Your task to perform on an android device: all mails in gmail Image 0: 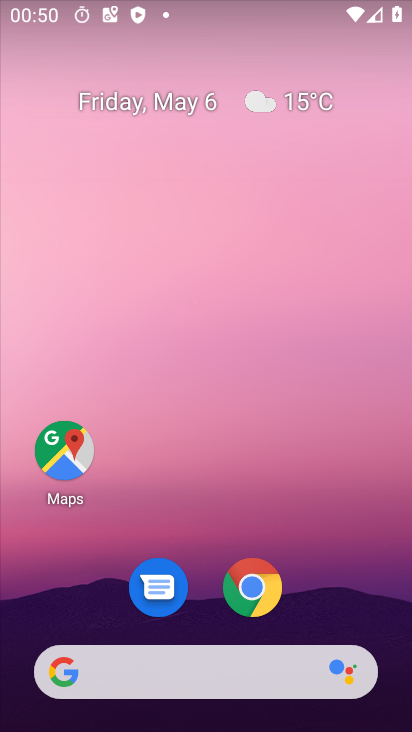
Step 0: drag from (371, 608) to (310, 271)
Your task to perform on an android device: all mails in gmail Image 1: 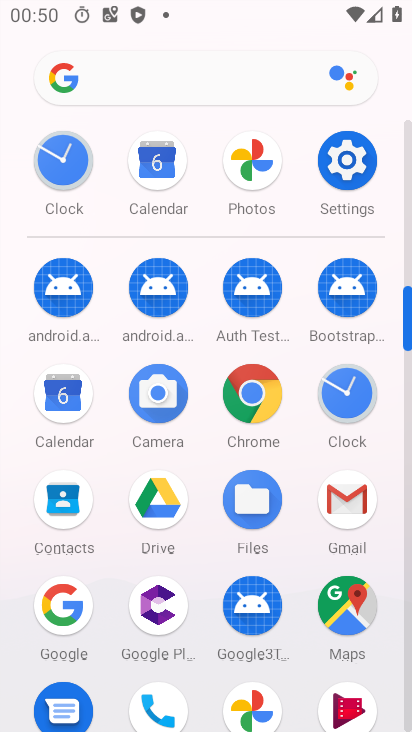
Step 1: click (366, 487)
Your task to perform on an android device: all mails in gmail Image 2: 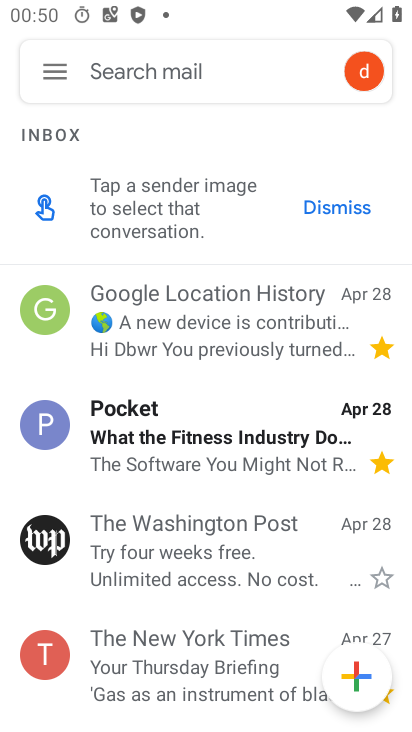
Step 2: click (42, 77)
Your task to perform on an android device: all mails in gmail Image 3: 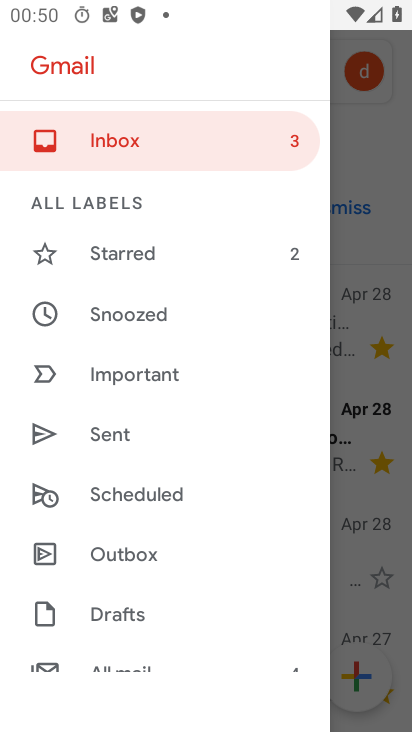
Step 3: click (230, 415)
Your task to perform on an android device: all mails in gmail Image 4: 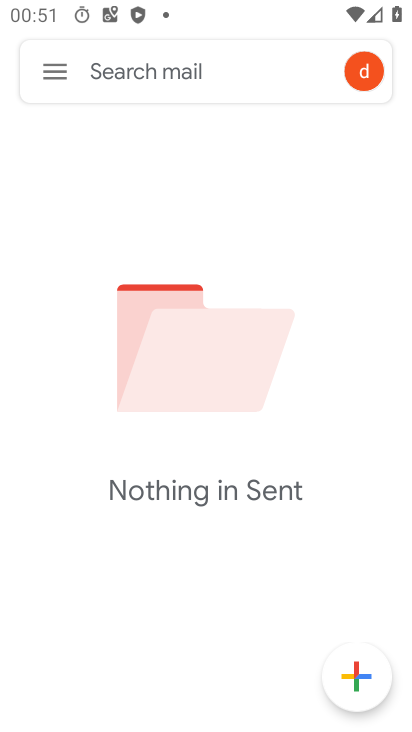
Step 4: press back button
Your task to perform on an android device: all mails in gmail Image 5: 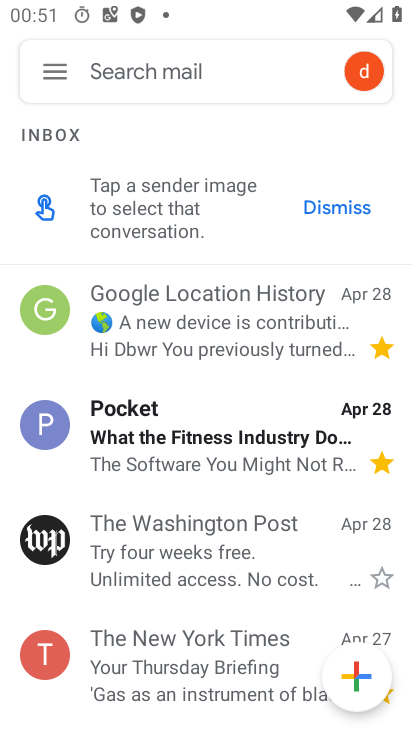
Step 5: click (61, 67)
Your task to perform on an android device: all mails in gmail Image 6: 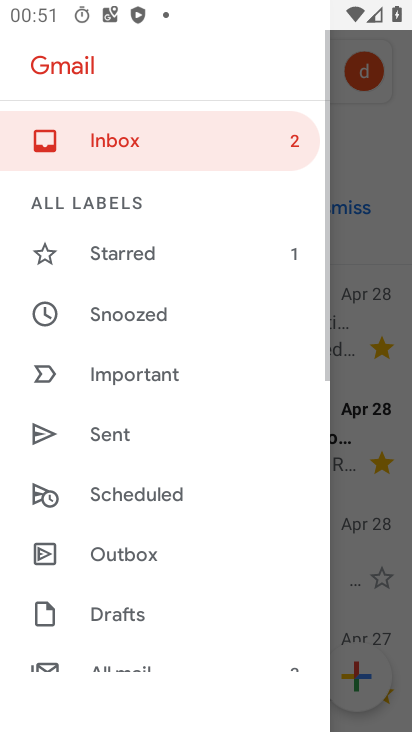
Step 6: drag from (223, 648) to (191, 304)
Your task to perform on an android device: all mails in gmail Image 7: 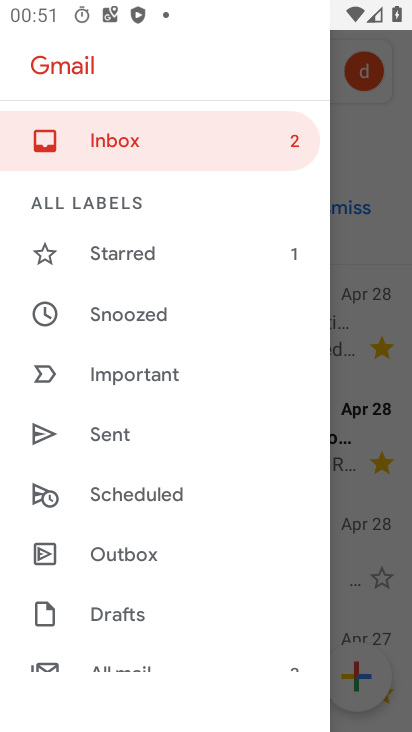
Step 7: drag from (236, 549) to (238, 291)
Your task to perform on an android device: all mails in gmail Image 8: 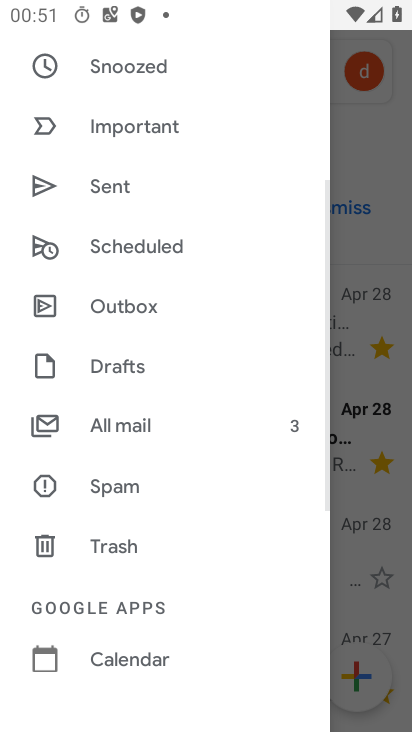
Step 8: click (99, 420)
Your task to perform on an android device: all mails in gmail Image 9: 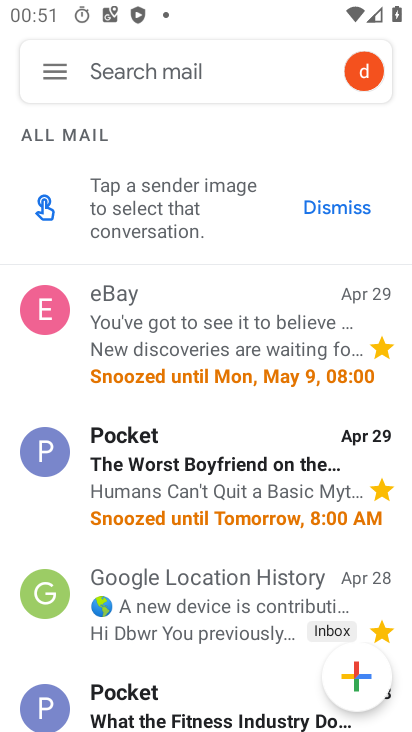
Step 9: task complete